Your task to perform on an android device: open a new tab in the chrome app Image 0: 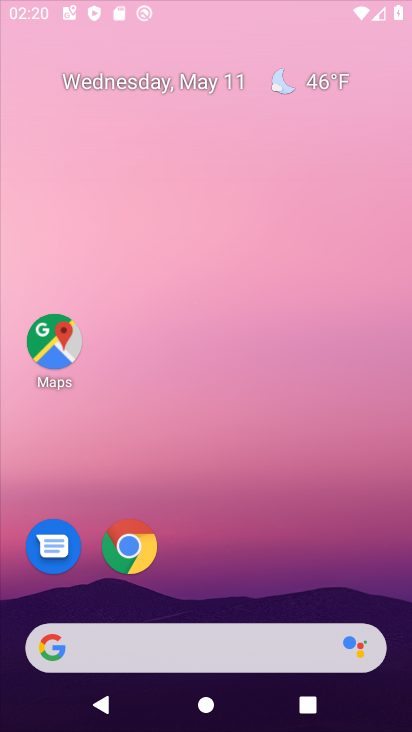
Step 0: click (322, 221)
Your task to perform on an android device: open a new tab in the chrome app Image 1: 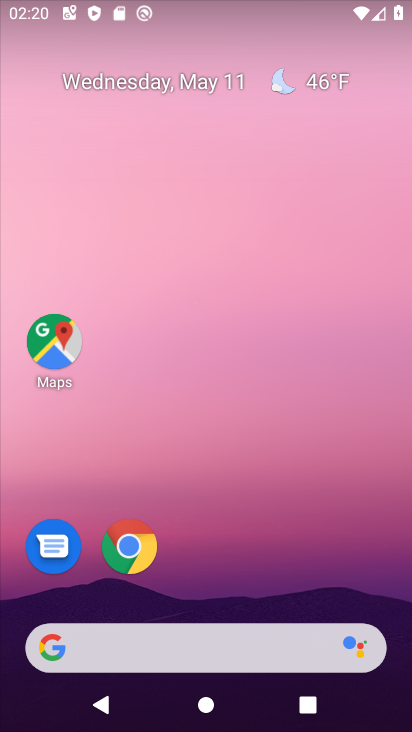
Step 1: drag from (200, 598) to (325, 117)
Your task to perform on an android device: open a new tab in the chrome app Image 2: 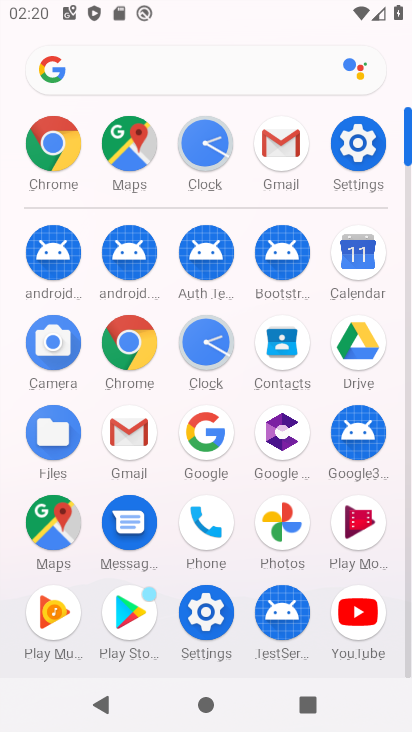
Step 2: click (125, 335)
Your task to perform on an android device: open a new tab in the chrome app Image 3: 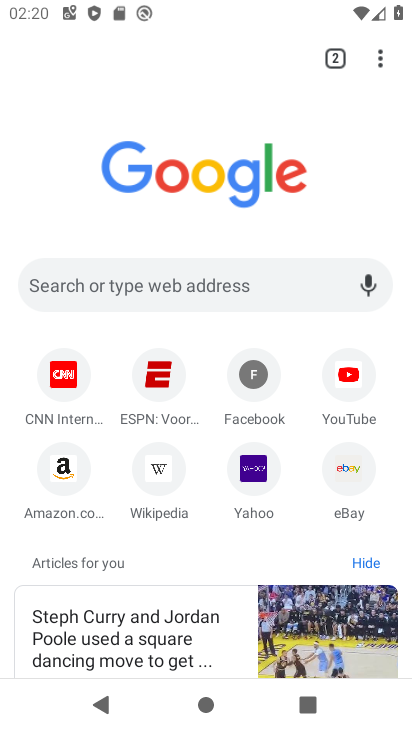
Step 3: click (339, 42)
Your task to perform on an android device: open a new tab in the chrome app Image 4: 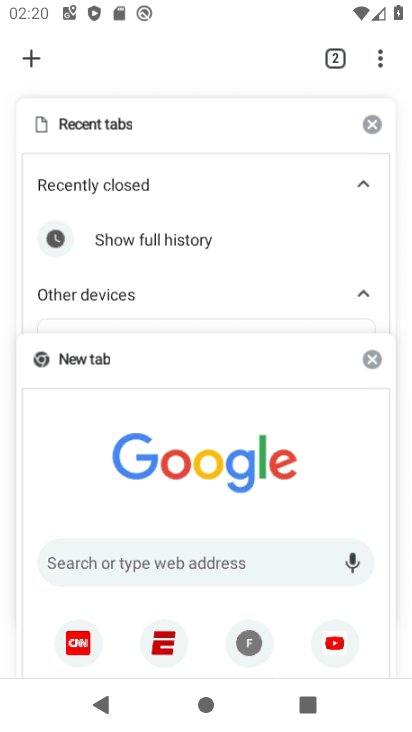
Step 4: click (45, 67)
Your task to perform on an android device: open a new tab in the chrome app Image 5: 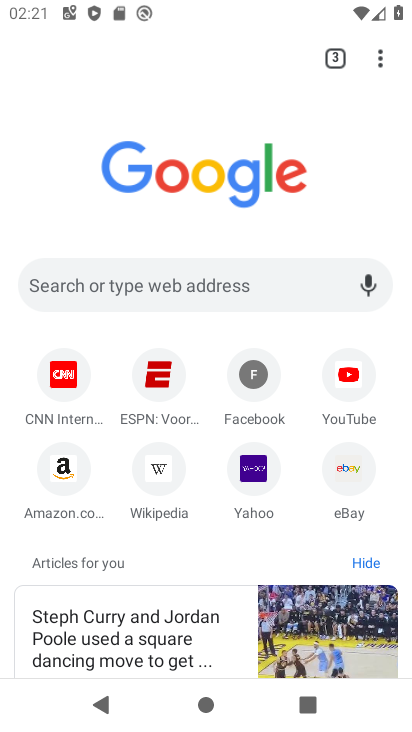
Step 5: task complete